Your task to perform on an android device: Open Google Maps and go to "Timeline" Image 0: 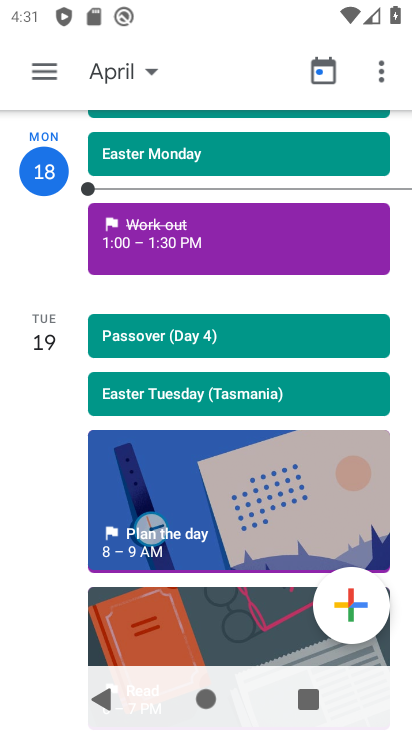
Step 0: press home button
Your task to perform on an android device: Open Google Maps and go to "Timeline" Image 1: 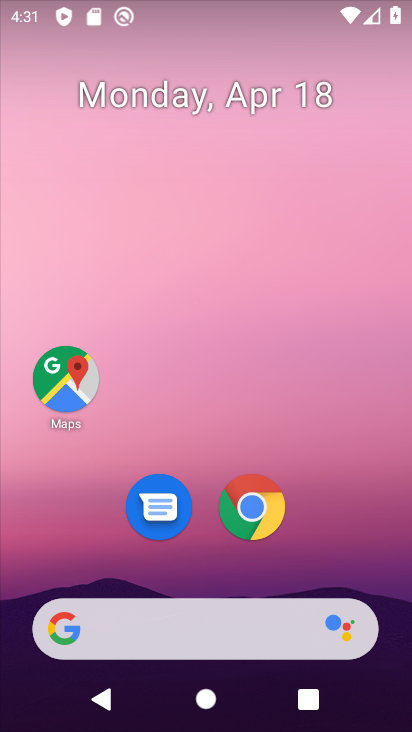
Step 1: drag from (383, 661) to (371, 100)
Your task to perform on an android device: Open Google Maps and go to "Timeline" Image 2: 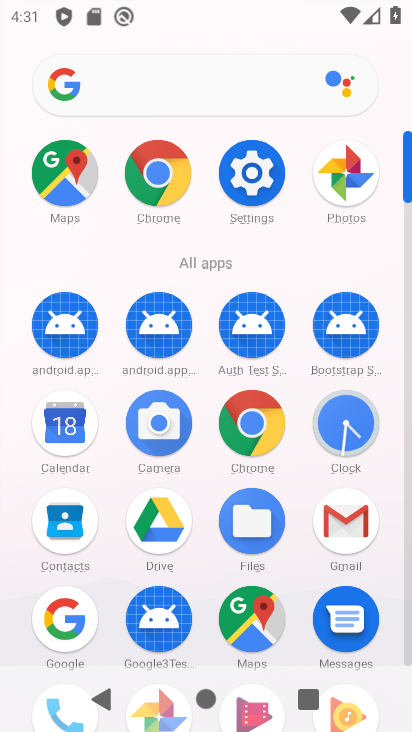
Step 2: click (260, 631)
Your task to perform on an android device: Open Google Maps and go to "Timeline" Image 3: 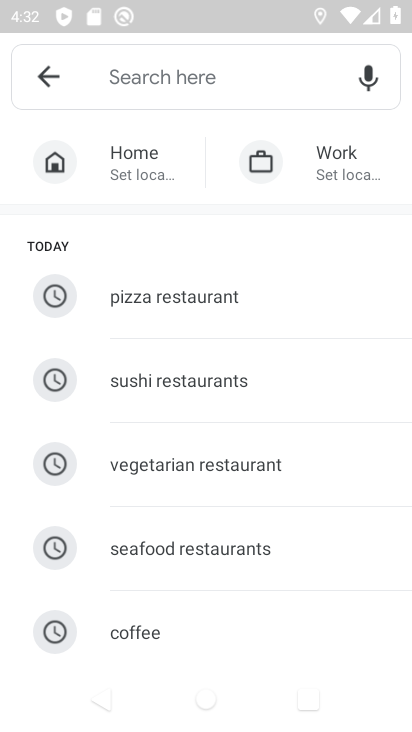
Step 3: click (46, 77)
Your task to perform on an android device: Open Google Maps and go to "Timeline" Image 4: 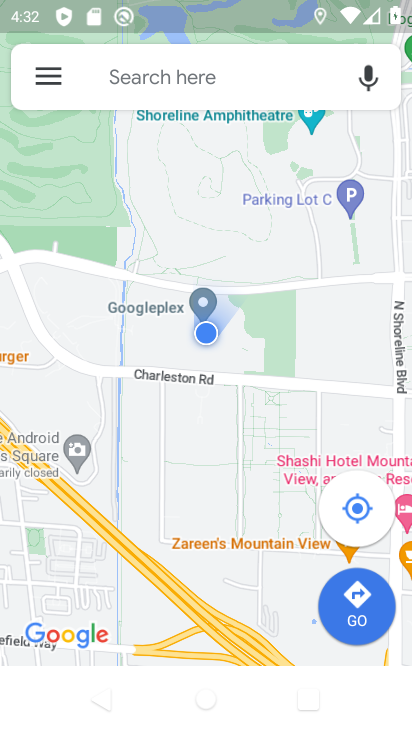
Step 4: click (46, 69)
Your task to perform on an android device: Open Google Maps and go to "Timeline" Image 5: 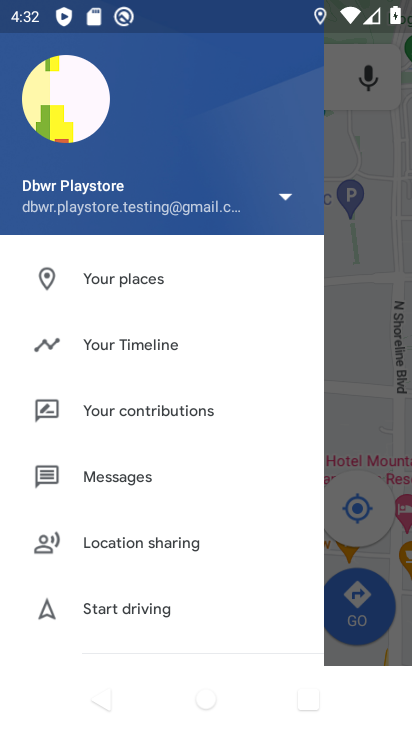
Step 5: click (140, 349)
Your task to perform on an android device: Open Google Maps and go to "Timeline" Image 6: 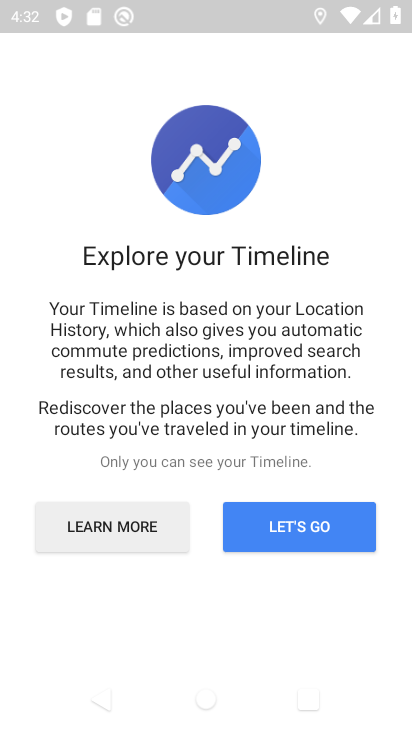
Step 6: click (287, 528)
Your task to perform on an android device: Open Google Maps and go to "Timeline" Image 7: 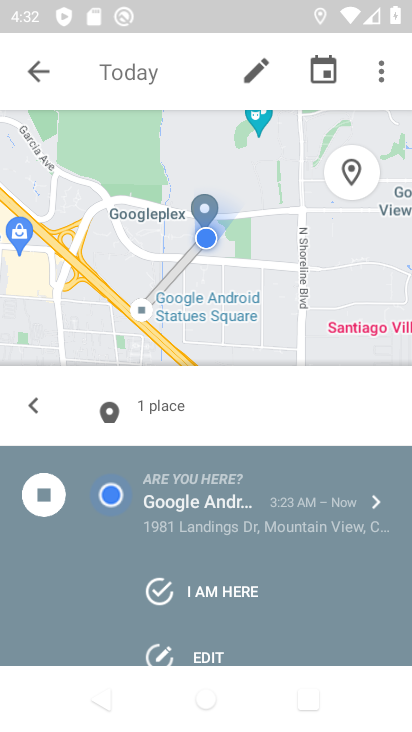
Step 7: click (368, 66)
Your task to perform on an android device: Open Google Maps and go to "Timeline" Image 8: 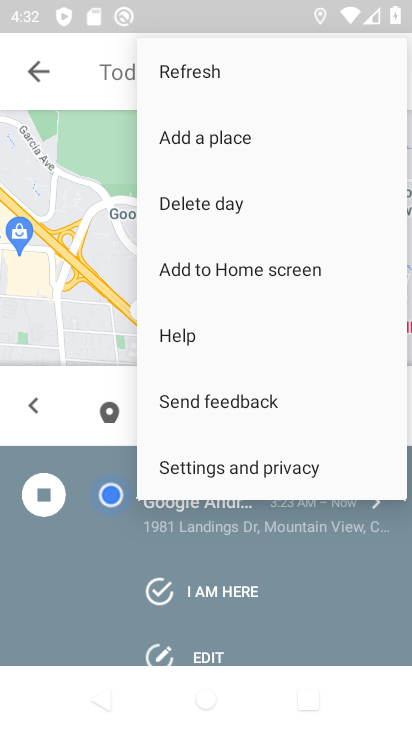
Step 8: click (75, 407)
Your task to perform on an android device: Open Google Maps and go to "Timeline" Image 9: 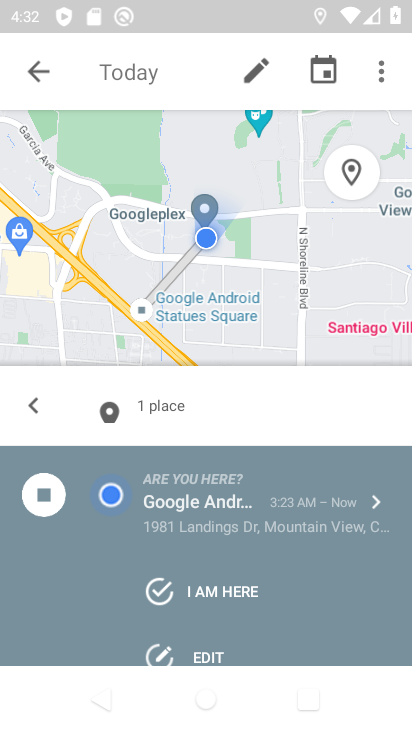
Step 9: task complete